Your task to perform on an android device: Search for Italian restaurants on Maps Image 0: 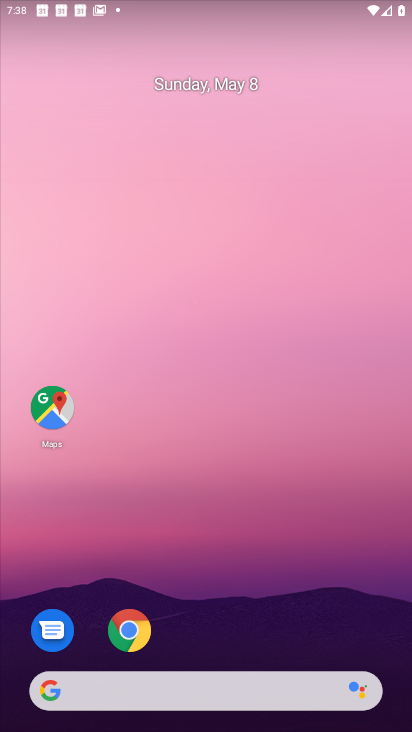
Step 0: click (220, 234)
Your task to perform on an android device: Search for Italian restaurants on Maps Image 1: 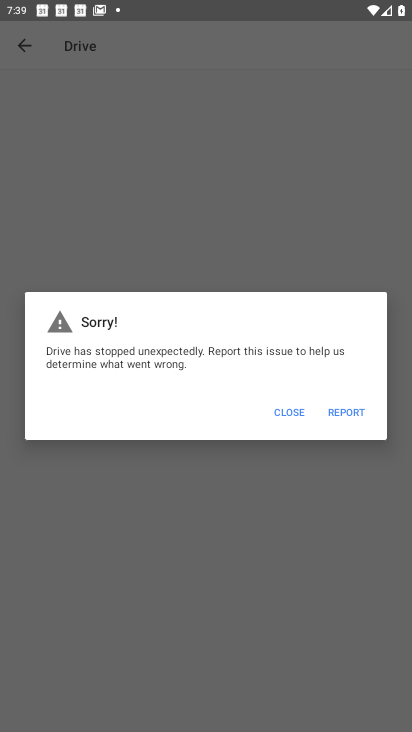
Step 1: press home button
Your task to perform on an android device: Search for Italian restaurants on Maps Image 2: 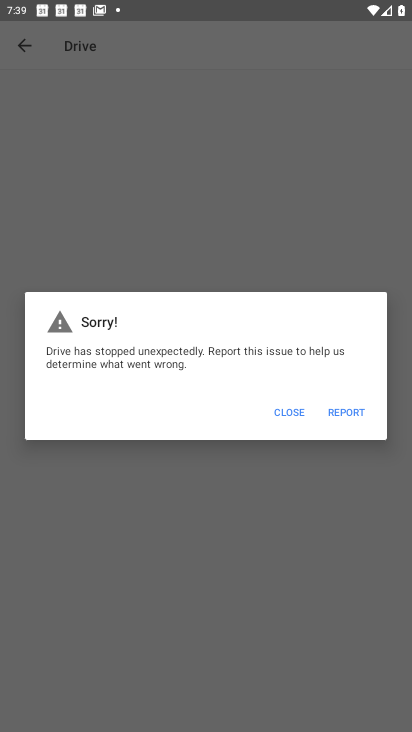
Step 2: press home button
Your task to perform on an android device: Search for Italian restaurants on Maps Image 3: 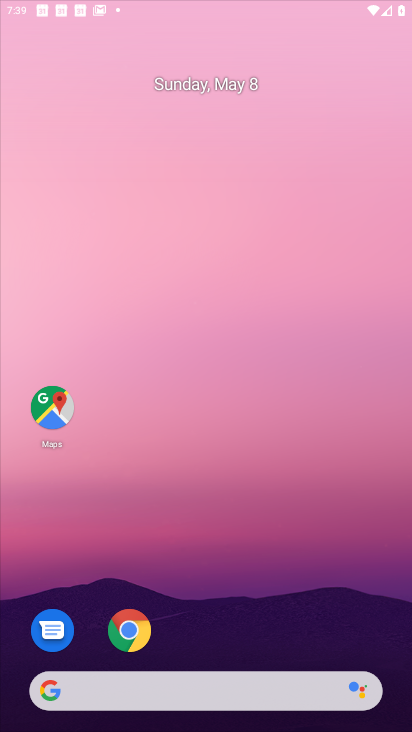
Step 3: press home button
Your task to perform on an android device: Search for Italian restaurants on Maps Image 4: 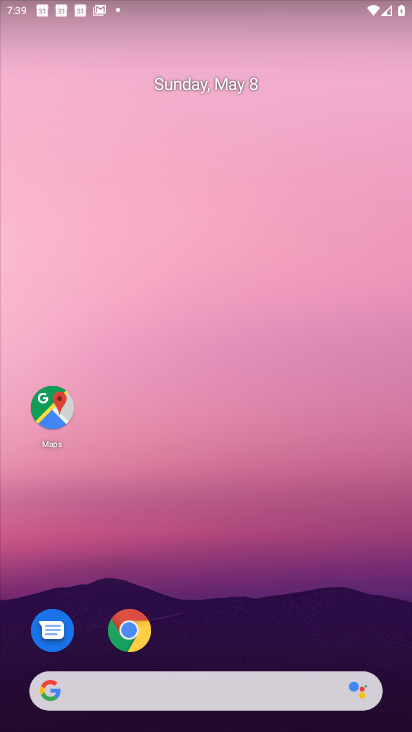
Step 4: drag from (188, 653) to (232, 276)
Your task to perform on an android device: Search for Italian restaurants on Maps Image 5: 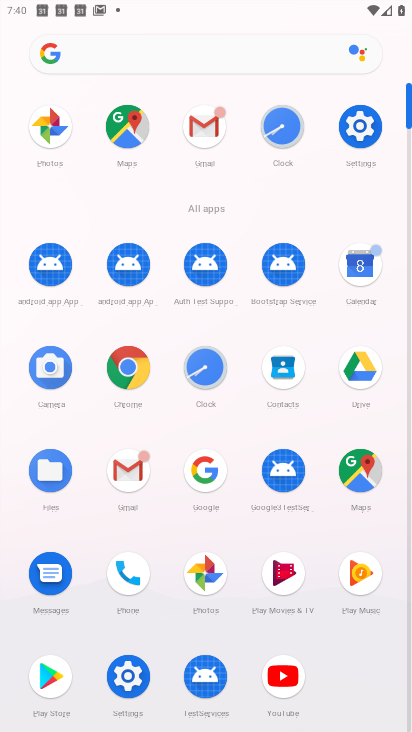
Step 5: click (348, 476)
Your task to perform on an android device: Search for Italian restaurants on Maps Image 6: 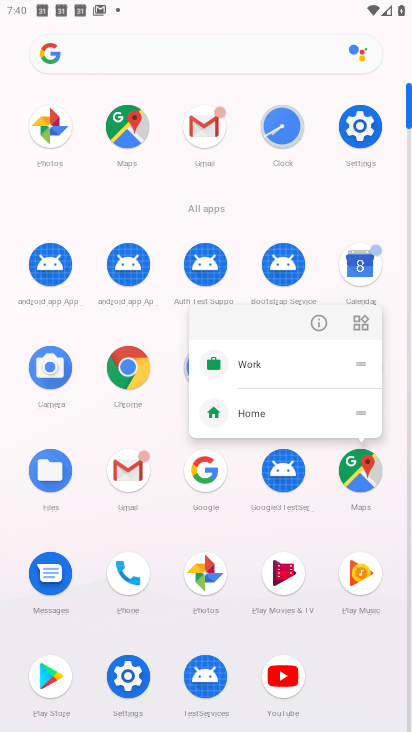
Step 6: click (311, 325)
Your task to perform on an android device: Search for Italian restaurants on Maps Image 7: 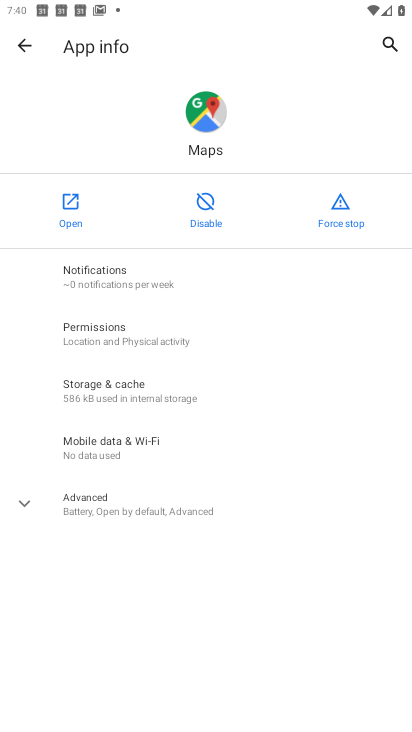
Step 7: click (78, 206)
Your task to perform on an android device: Search for Italian restaurants on Maps Image 8: 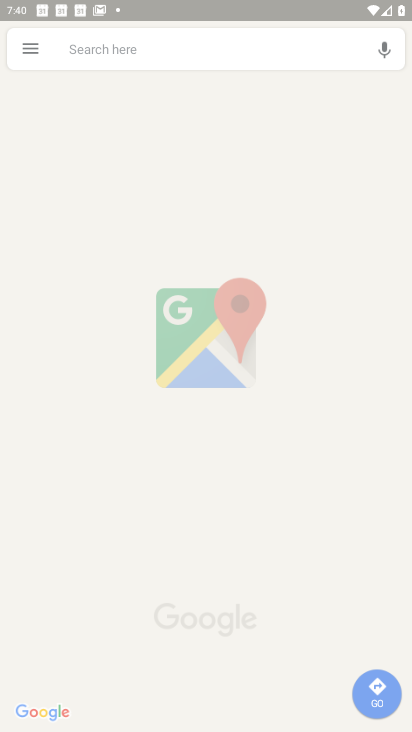
Step 8: drag from (185, 600) to (229, 356)
Your task to perform on an android device: Search for Italian restaurants on Maps Image 9: 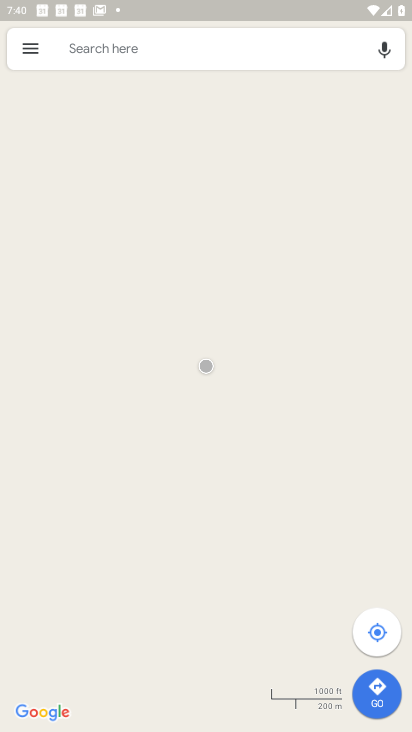
Step 9: drag from (214, 524) to (260, 239)
Your task to perform on an android device: Search for Italian restaurants on Maps Image 10: 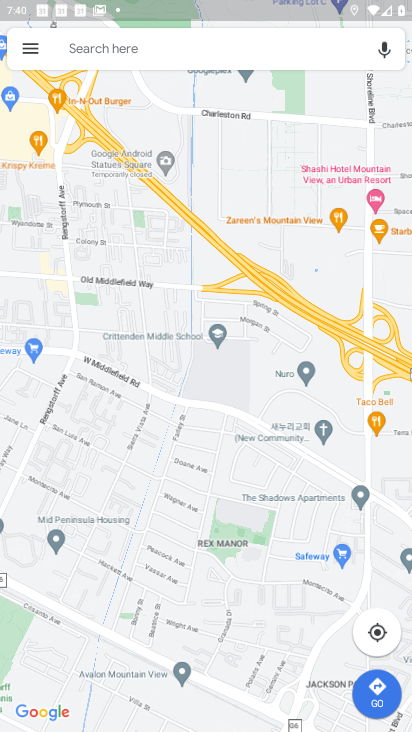
Step 10: drag from (247, 627) to (206, 297)
Your task to perform on an android device: Search for Italian restaurants on Maps Image 11: 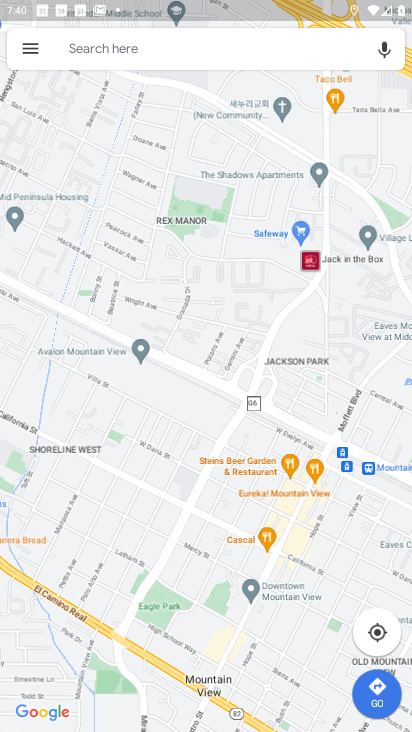
Step 11: drag from (248, 568) to (207, 351)
Your task to perform on an android device: Search for Italian restaurants on Maps Image 12: 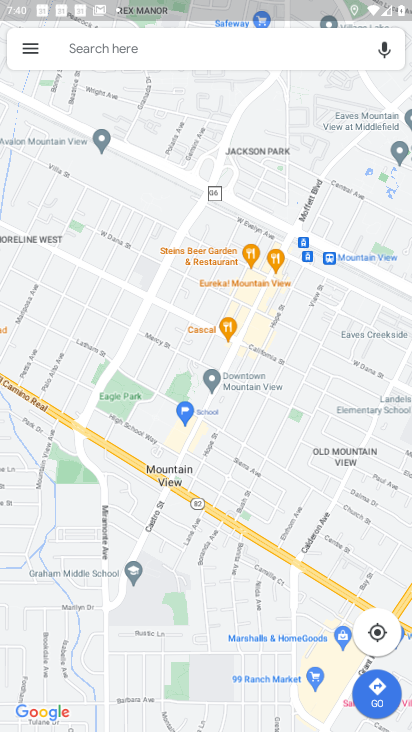
Step 12: click (254, 42)
Your task to perform on an android device: Search for Italian restaurants on Maps Image 13: 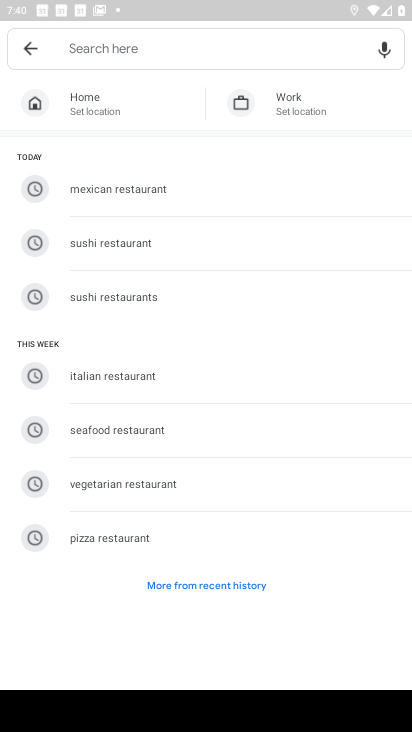
Step 13: click (111, 383)
Your task to perform on an android device: Search for Italian restaurants on Maps Image 14: 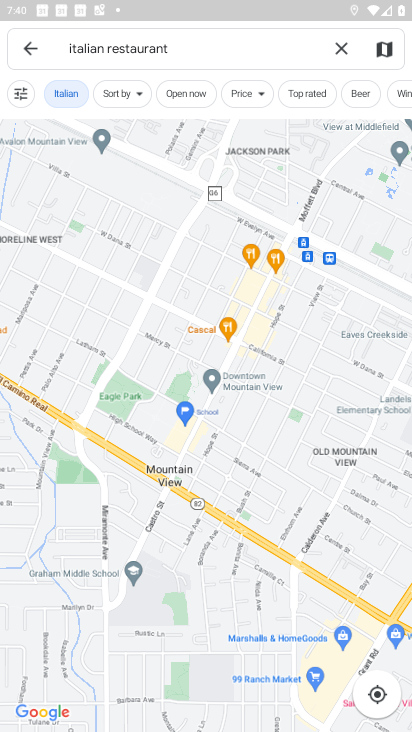
Step 14: task complete